Your task to perform on an android device: install app "Clock" Image 0: 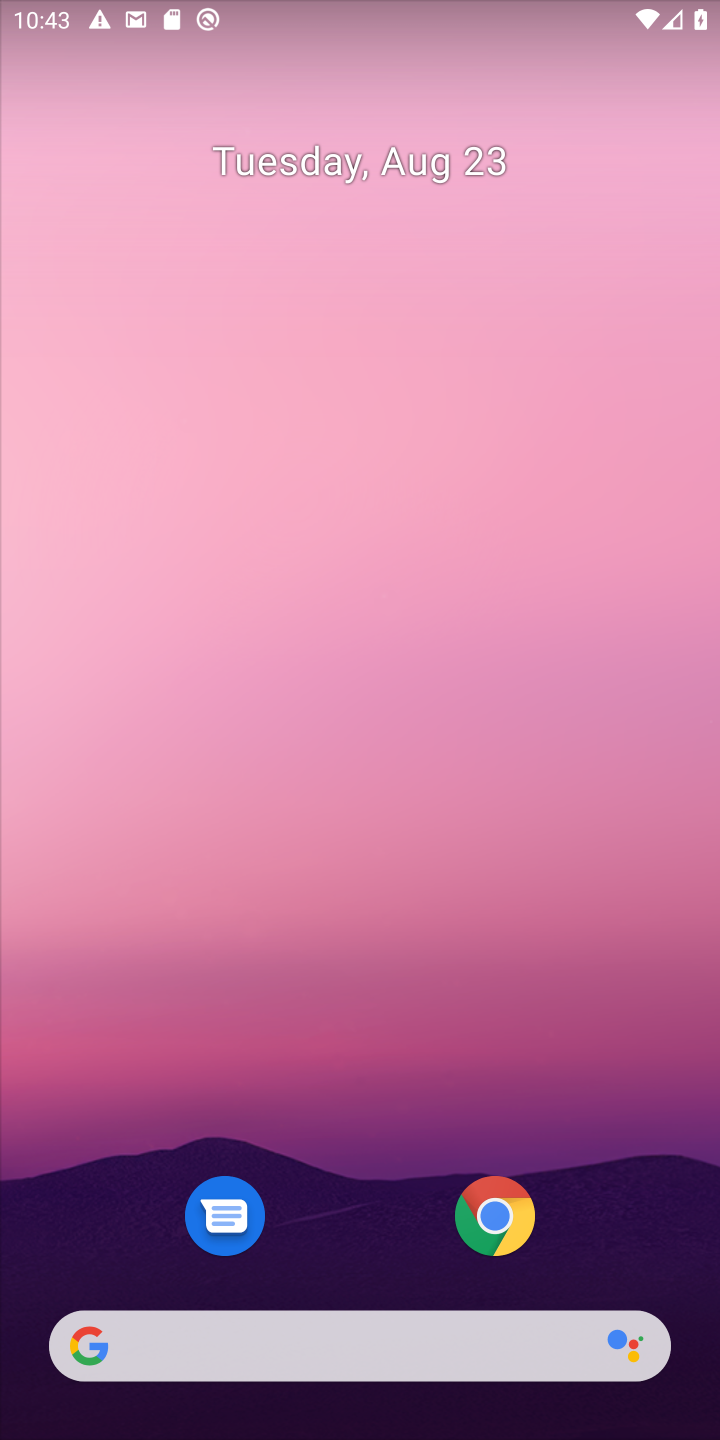
Step 0: drag from (323, 1336) to (386, 21)
Your task to perform on an android device: install app "Clock" Image 1: 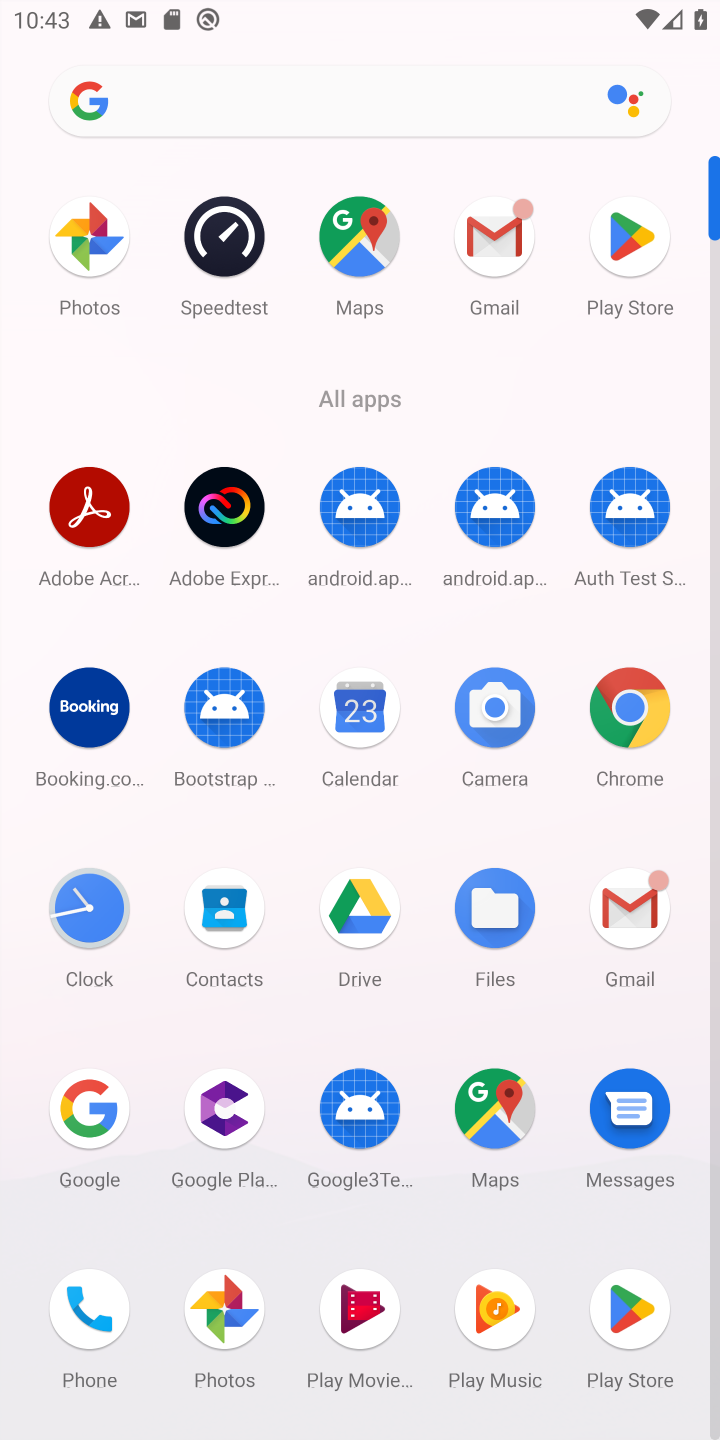
Step 1: click (632, 250)
Your task to perform on an android device: install app "Clock" Image 2: 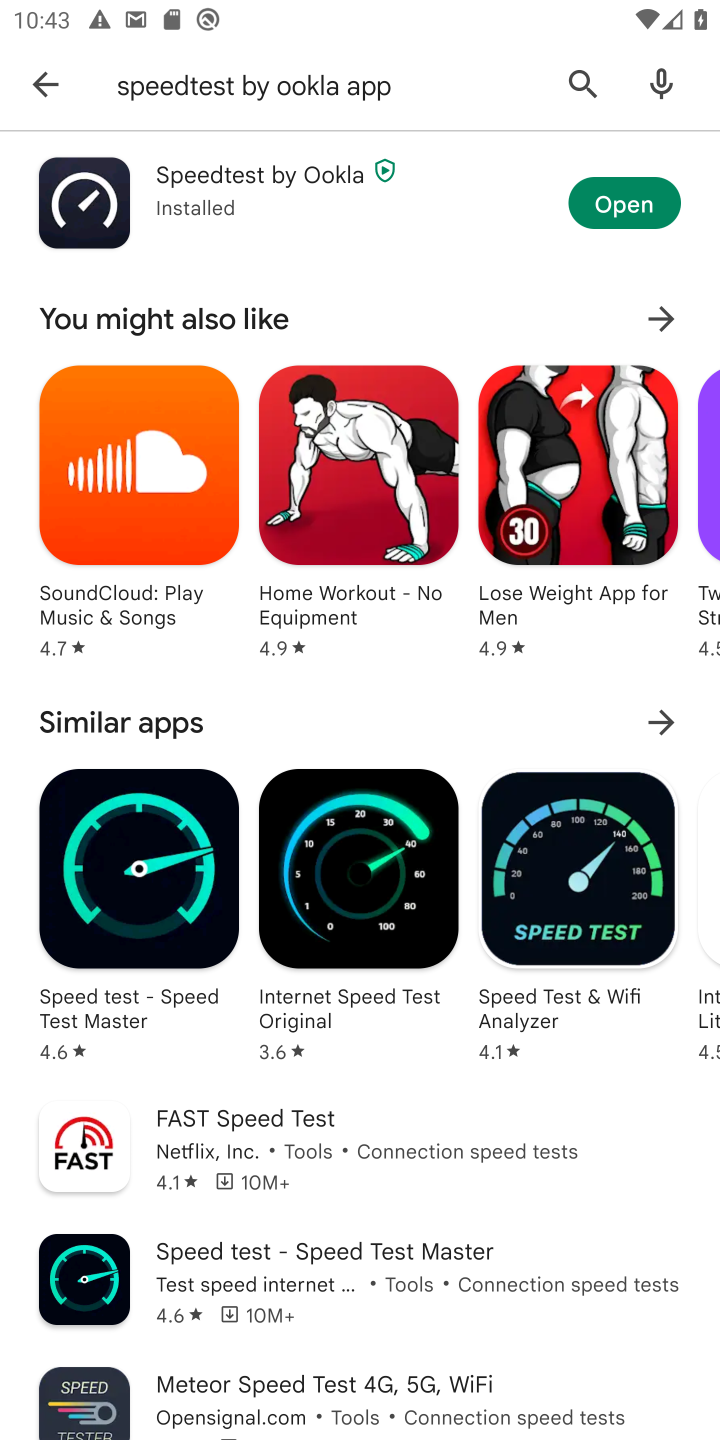
Step 2: press back button
Your task to perform on an android device: install app "Clock" Image 3: 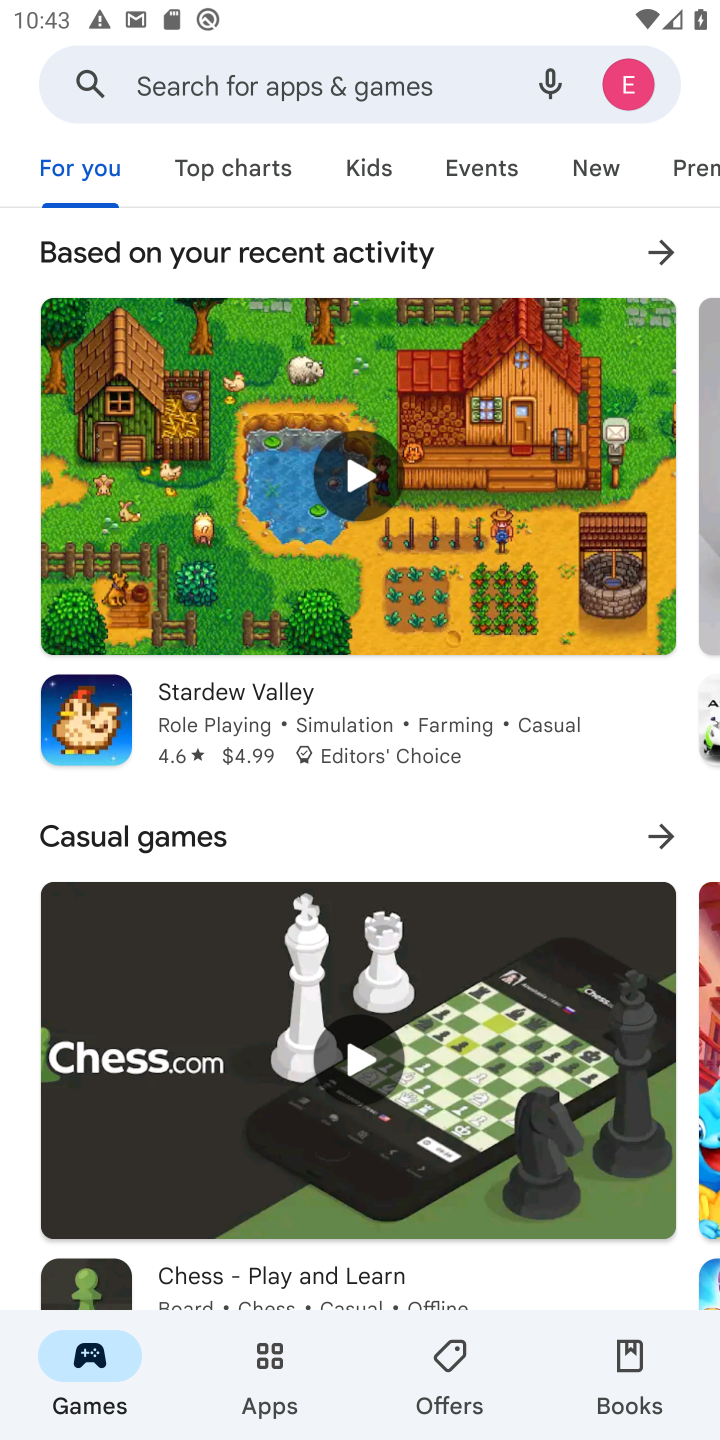
Step 3: click (346, 86)
Your task to perform on an android device: install app "Clock" Image 4: 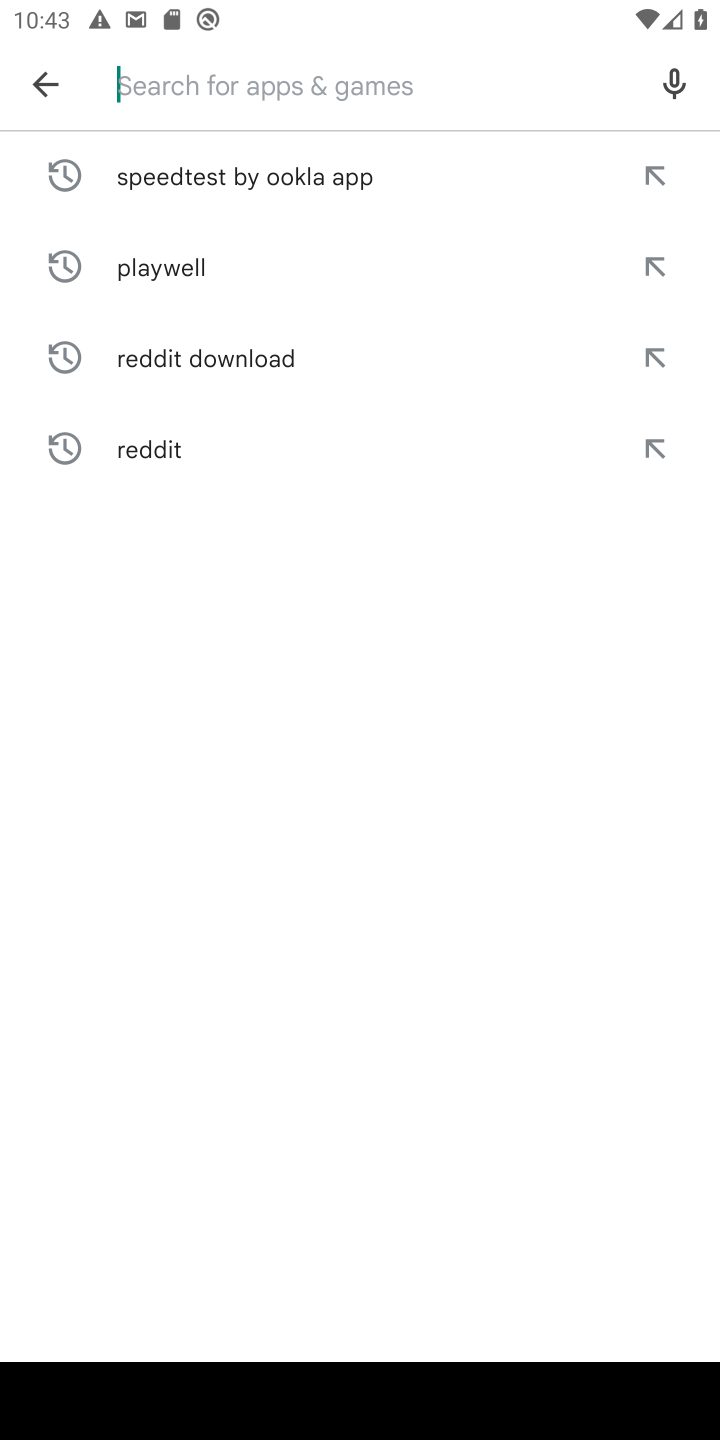
Step 4: type "Clock"
Your task to perform on an android device: install app "Clock" Image 5: 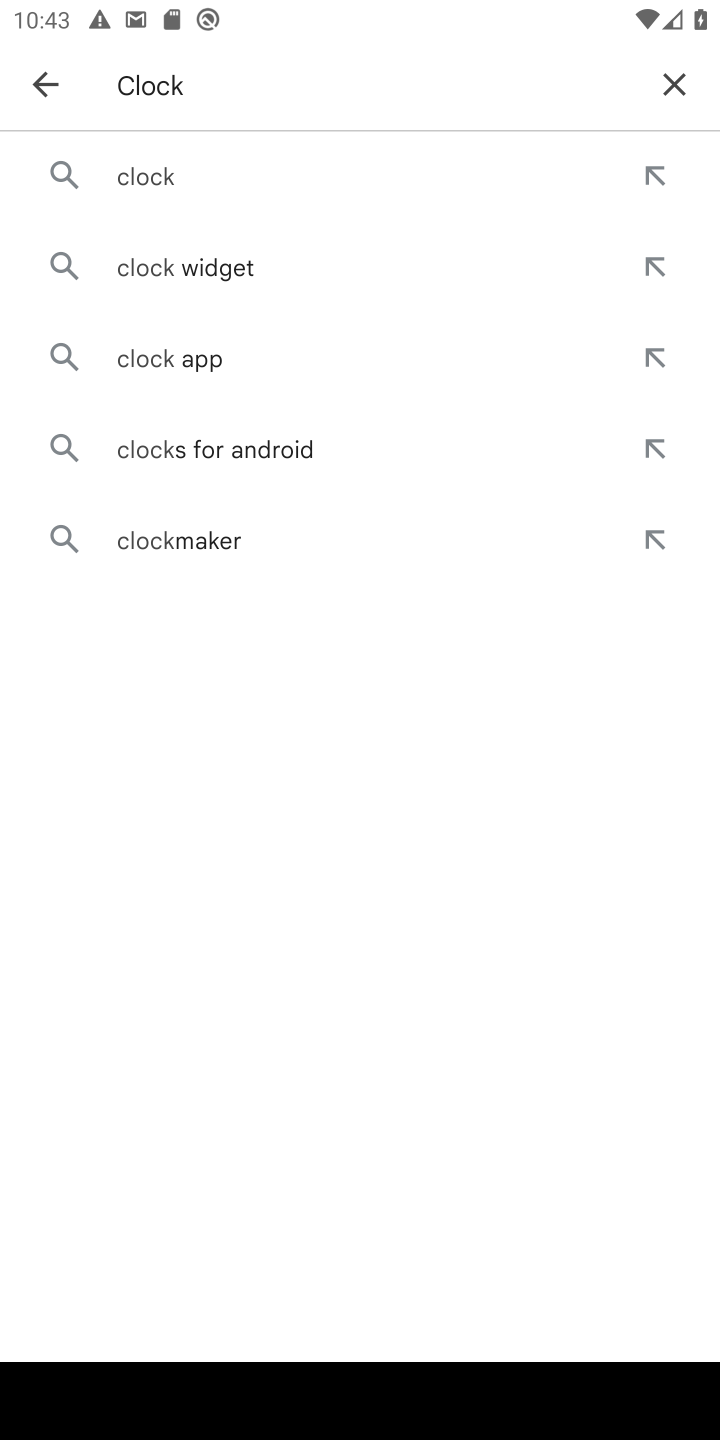
Step 5: click (154, 181)
Your task to perform on an android device: install app "Clock" Image 6: 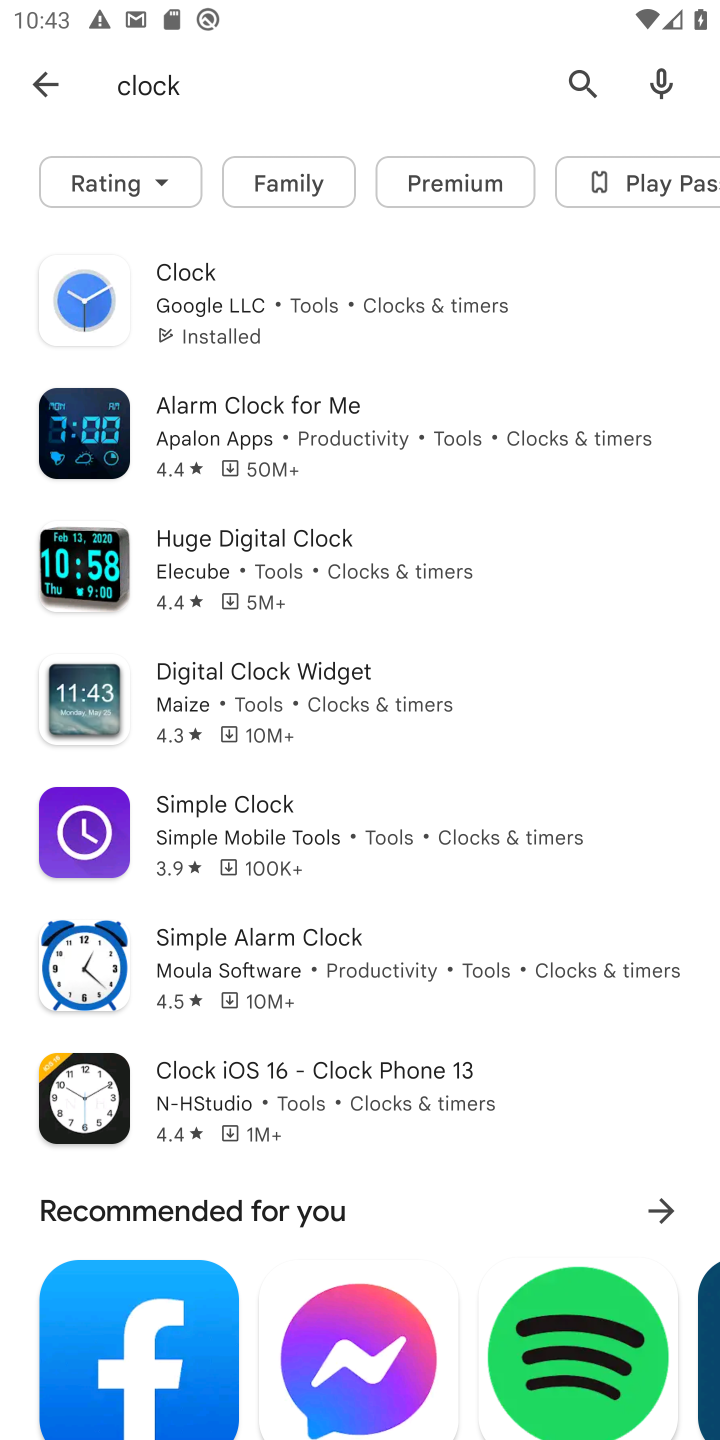
Step 6: click (196, 290)
Your task to perform on an android device: install app "Clock" Image 7: 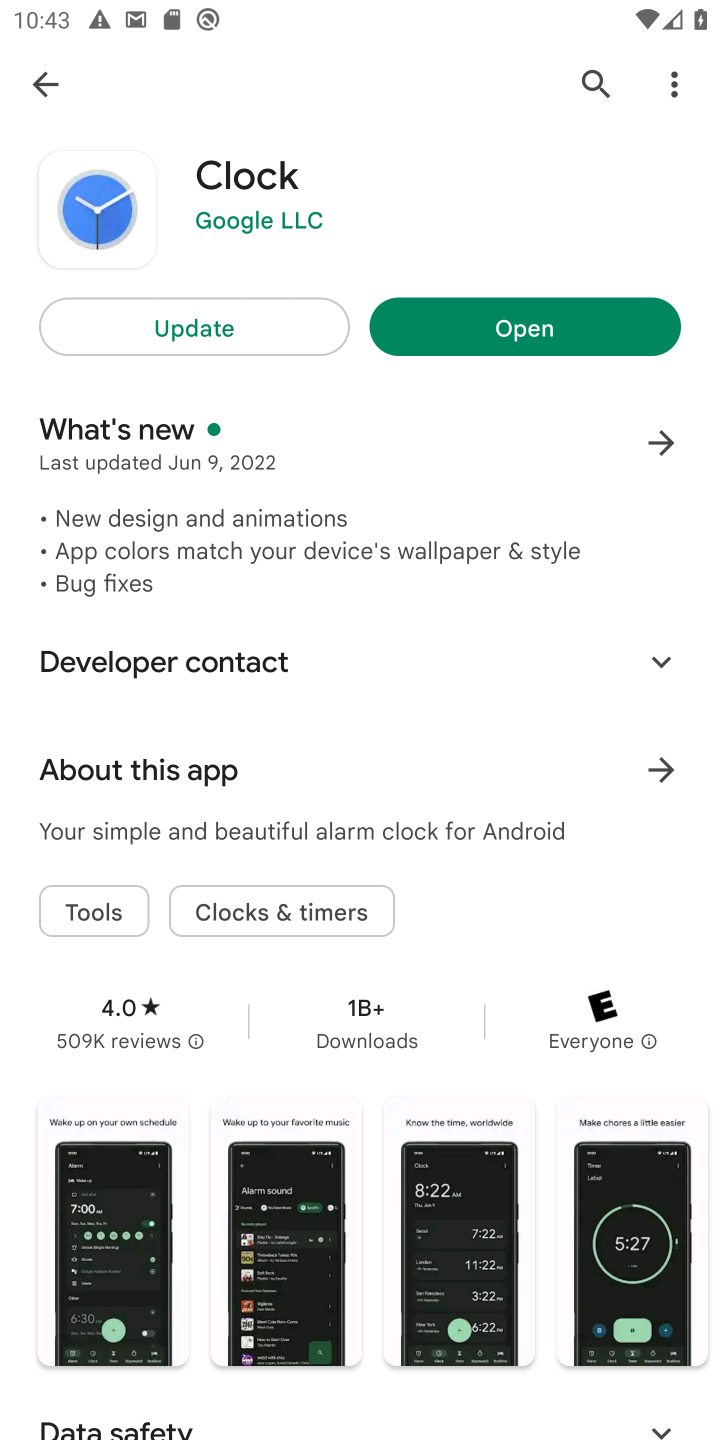
Step 7: click (243, 331)
Your task to perform on an android device: install app "Clock" Image 8: 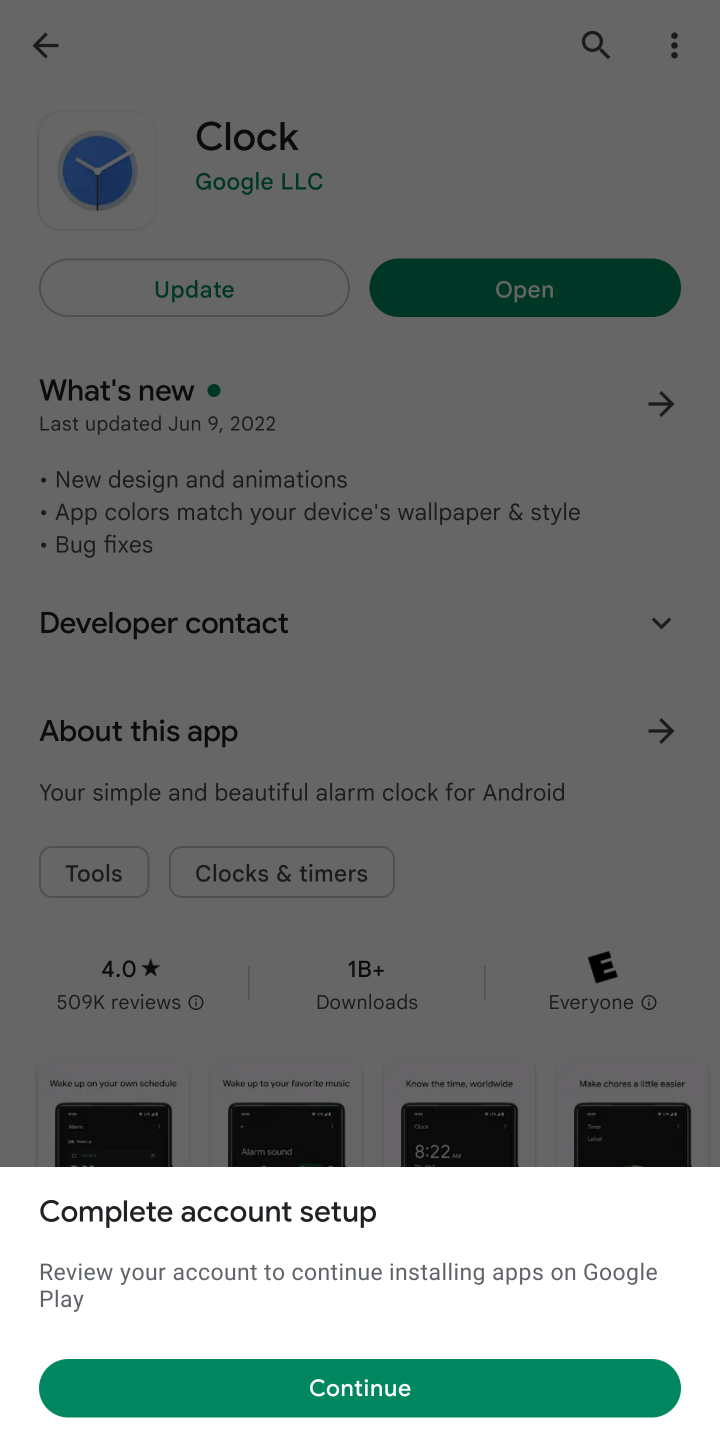
Step 8: click (413, 1385)
Your task to perform on an android device: install app "Clock" Image 9: 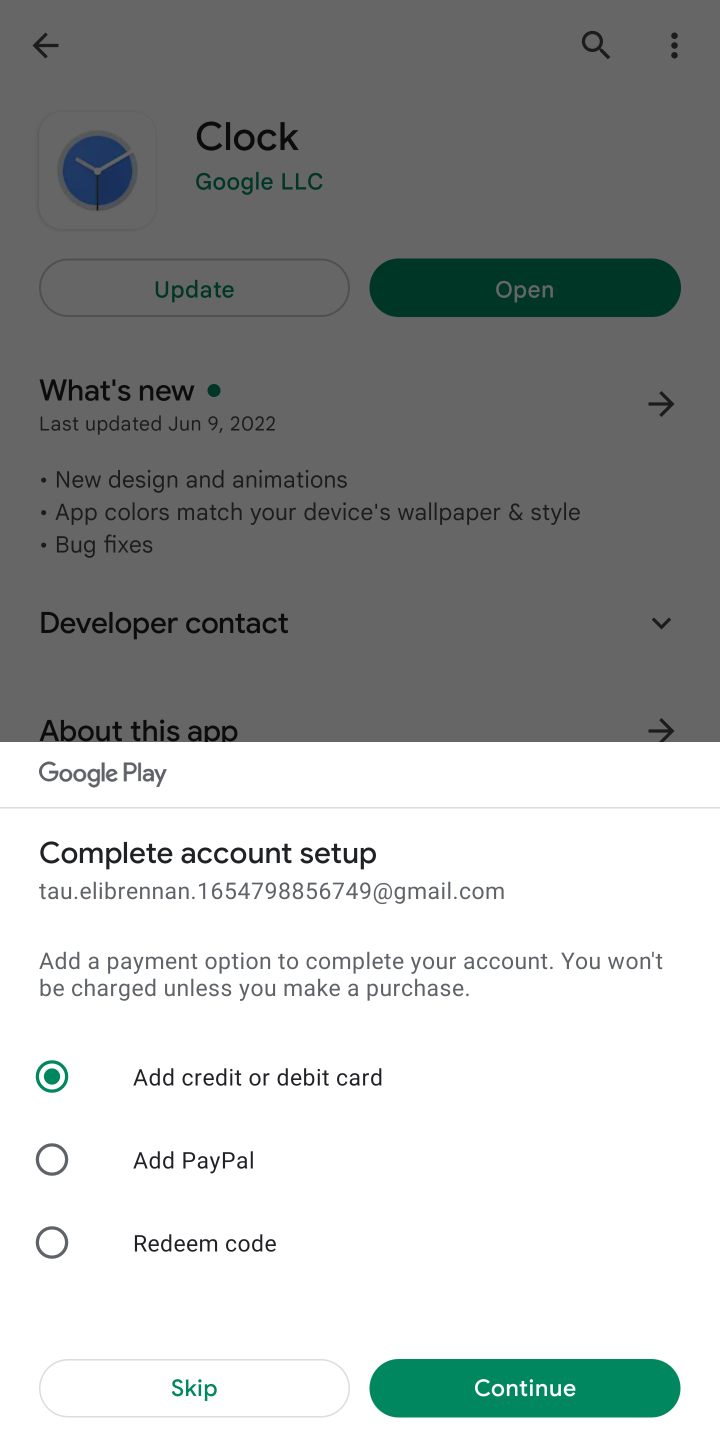
Step 9: click (211, 1395)
Your task to perform on an android device: install app "Clock" Image 10: 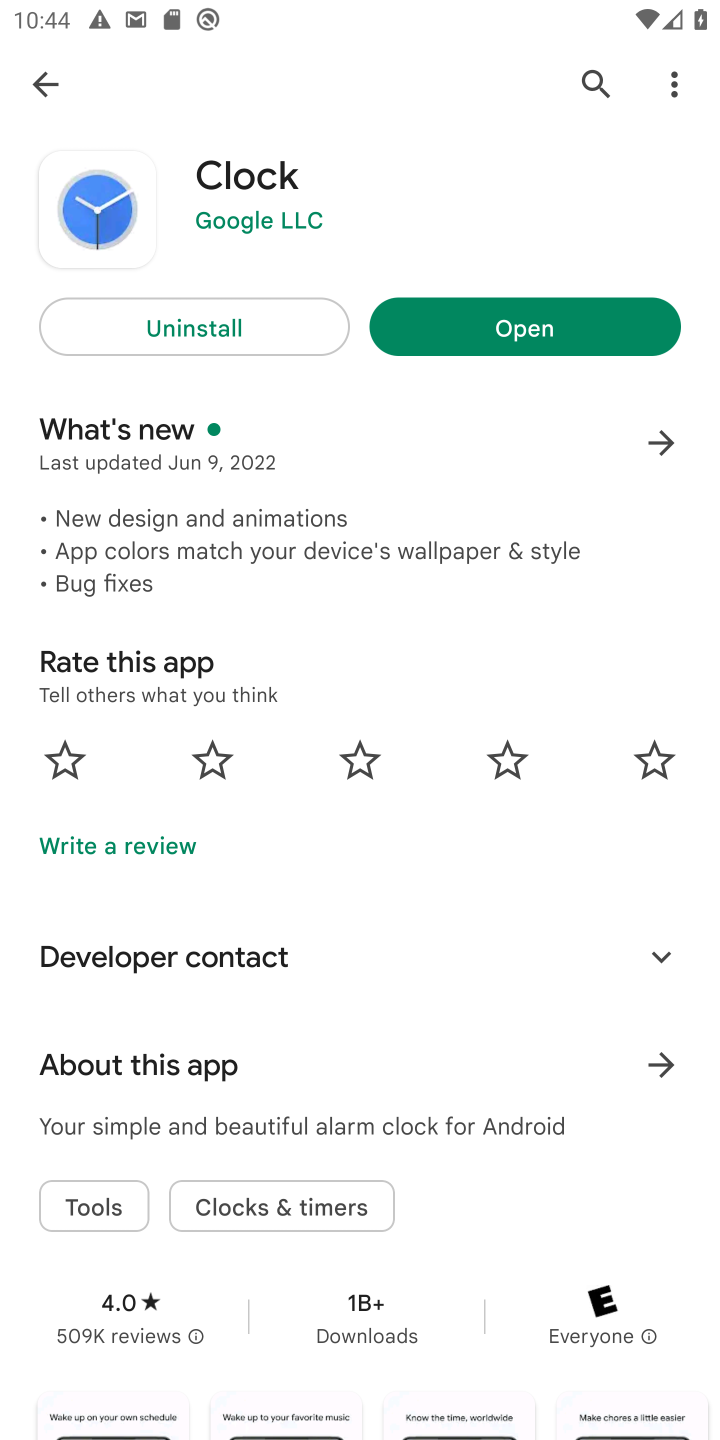
Step 10: task complete